Your task to perform on an android device: check android version Image 0: 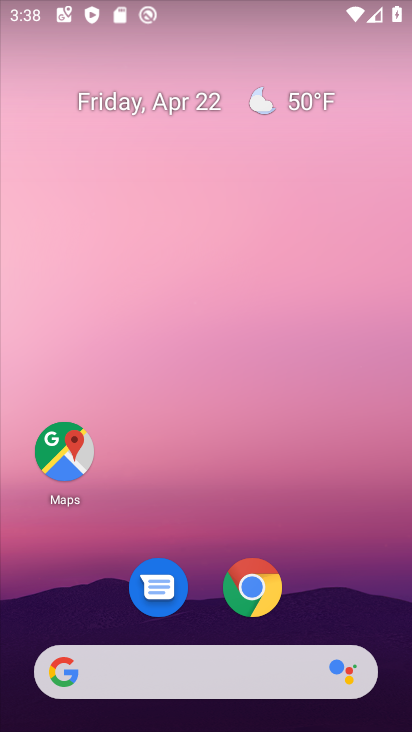
Step 0: drag from (348, 579) to (358, 4)
Your task to perform on an android device: check android version Image 1: 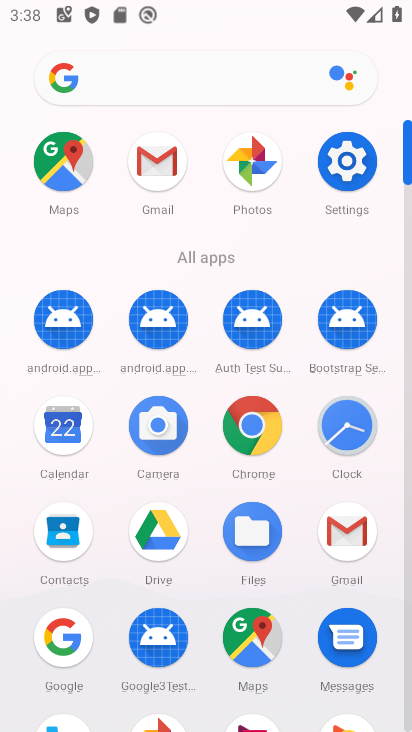
Step 1: click (348, 175)
Your task to perform on an android device: check android version Image 2: 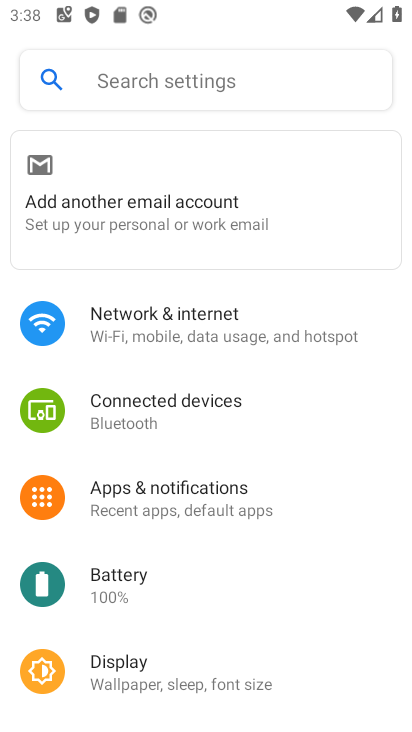
Step 2: drag from (363, 661) to (361, 151)
Your task to perform on an android device: check android version Image 3: 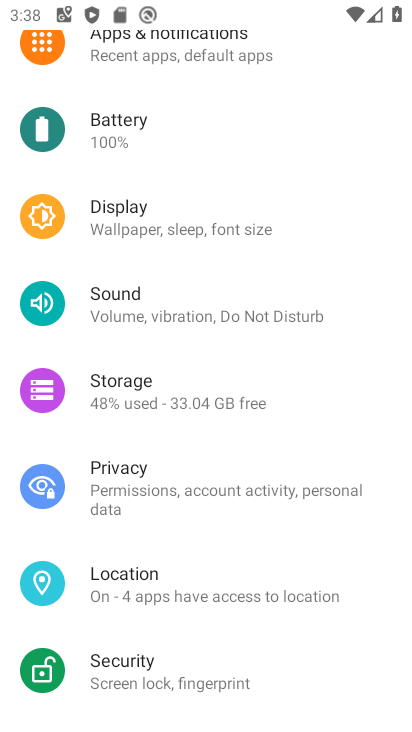
Step 3: drag from (336, 588) to (316, 114)
Your task to perform on an android device: check android version Image 4: 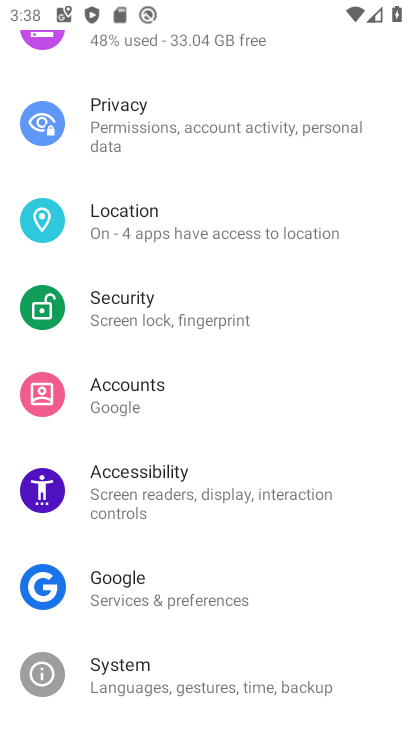
Step 4: drag from (347, 612) to (353, 207)
Your task to perform on an android device: check android version Image 5: 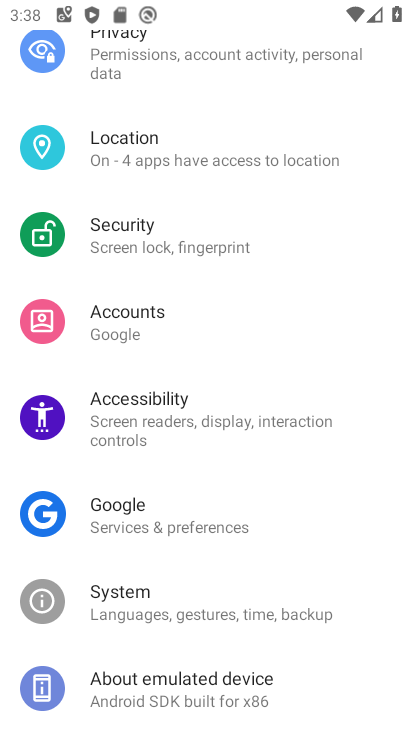
Step 5: click (188, 700)
Your task to perform on an android device: check android version Image 6: 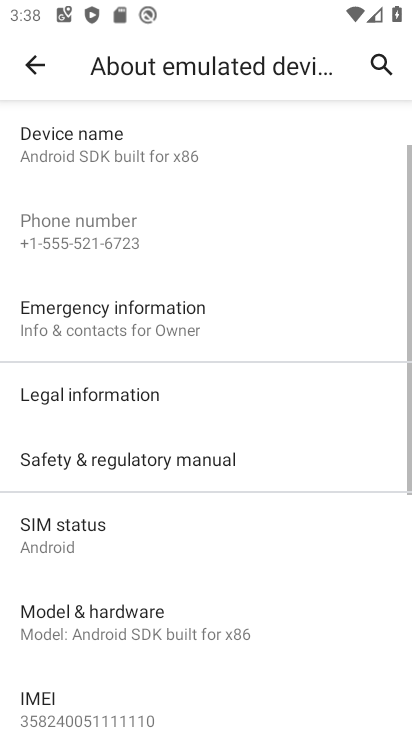
Step 6: drag from (359, 642) to (351, 216)
Your task to perform on an android device: check android version Image 7: 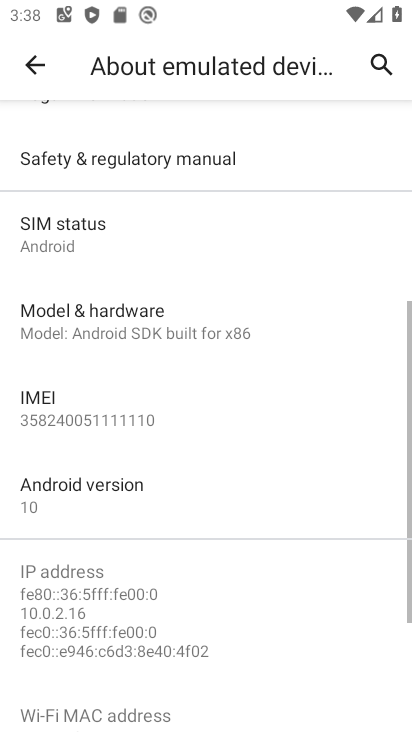
Step 7: click (62, 499)
Your task to perform on an android device: check android version Image 8: 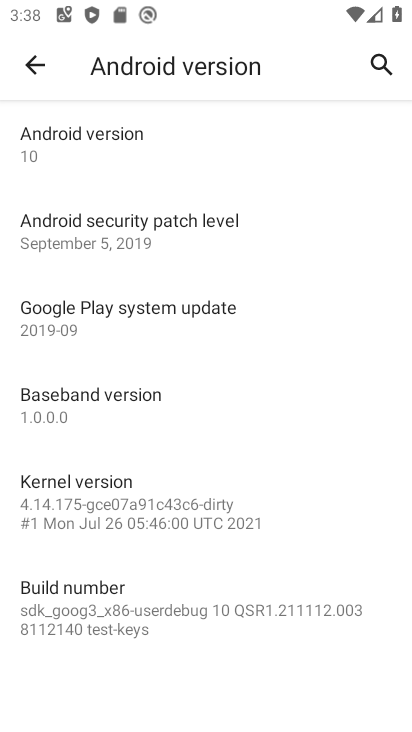
Step 8: task complete